Your task to perform on an android device: Go to accessibility settings Image 0: 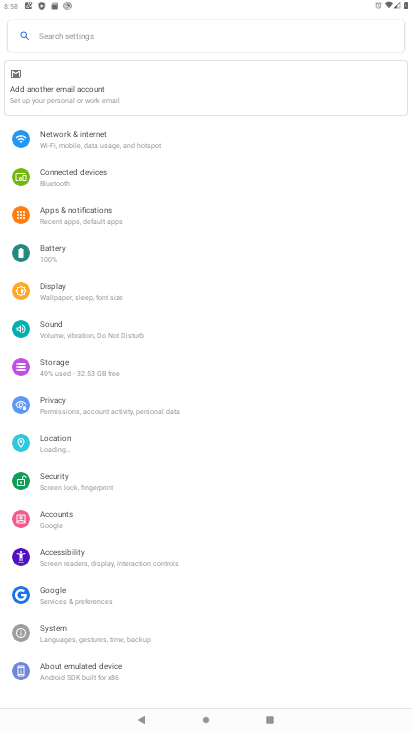
Step 0: click (108, 553)
Your task to perform on an android device: Go to accessibility settings Image 1: 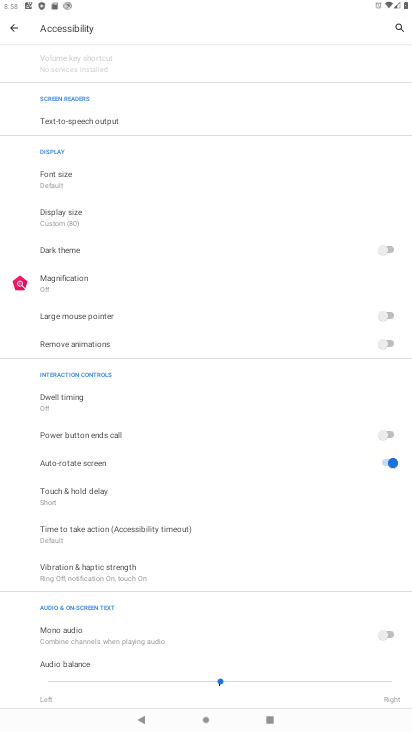
Step 1: task complete